Your task to perform on an android device: star an email in the gmail app Image 0: 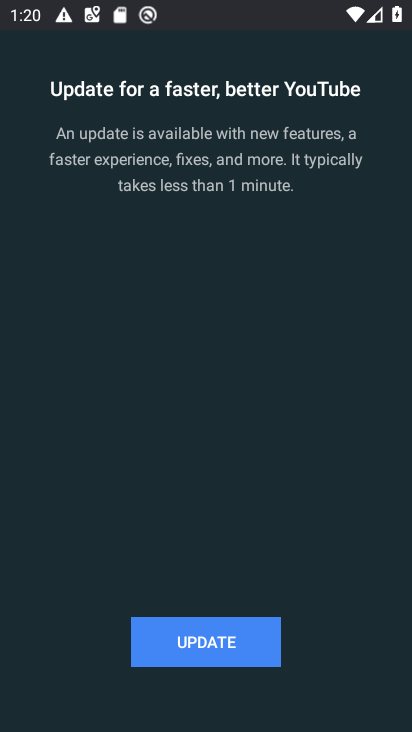
Step 0: press home button
Your task to perform on an android device: star an email in the gmail app Image 1: 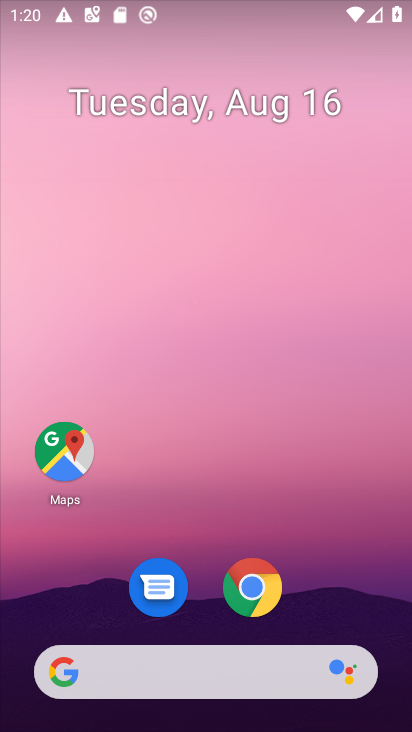
Step 1: drag from (175, 649) to (178, 154)
Your task to perform on an android device: star an email in the gmail app Image 2: 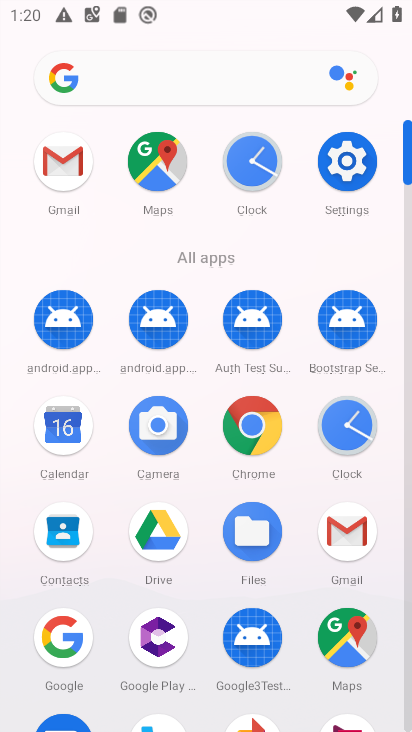
Step 2: click (345, 542)
Your task to perform on an android device: star an email in the gmail app Image 3: 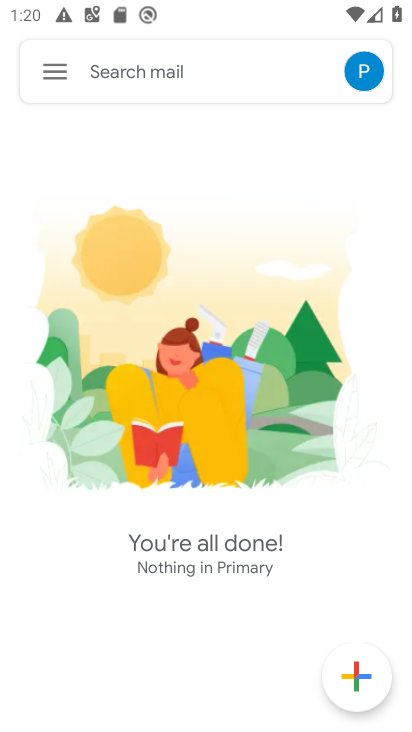
Step 3: click (64, 65)
Your task to perform on an android device: star an email in the gmail app Image 4: 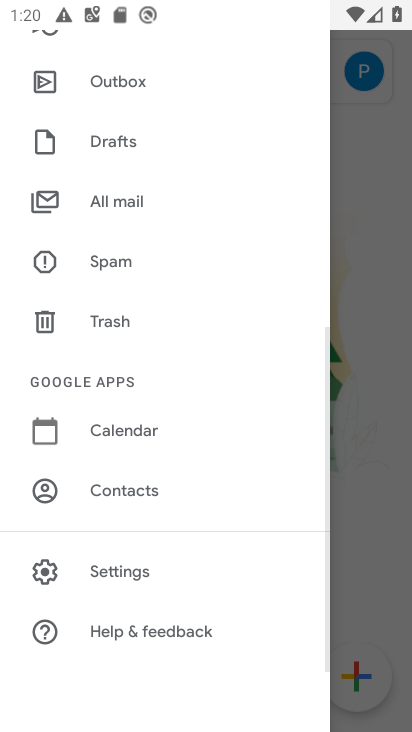
Step 4: click (101, 257)
Your task to perform on an android device: star an email in the gmail app Image 5: 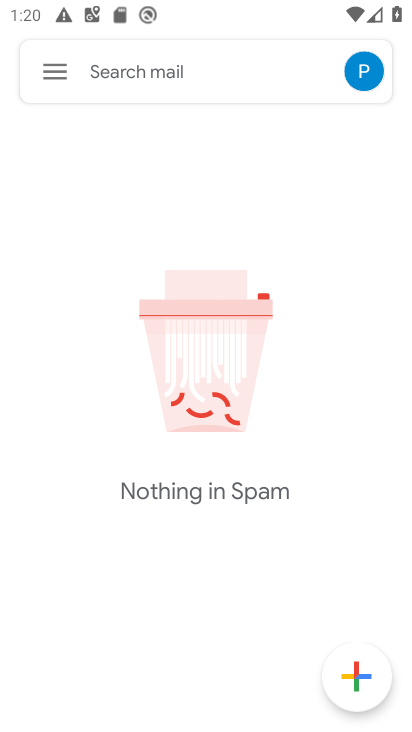
Step 5: task complete